Your task to perform on an android device: toggle javascript in the chrome app Image 0: 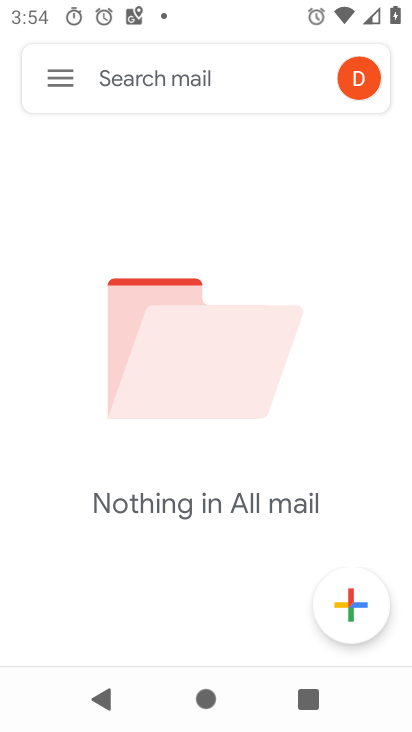
Step 0: press home button
Your task to perform on an android device: toggle javascript in the chrome app Image 1: 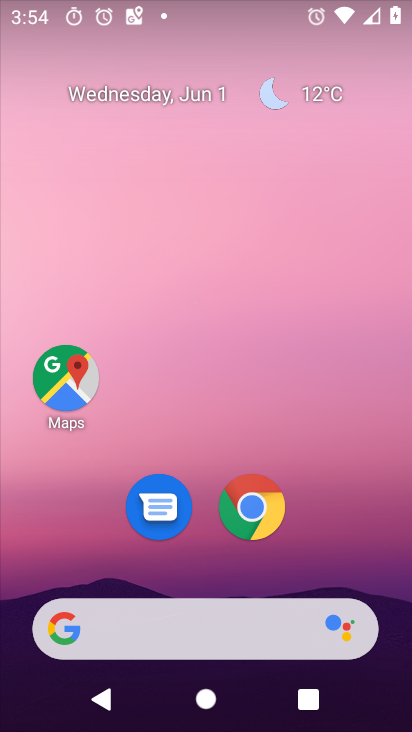
Step 1: click (257, 513)
Your task to perform on an android device: toggle javascript in the chrome app Image 2: 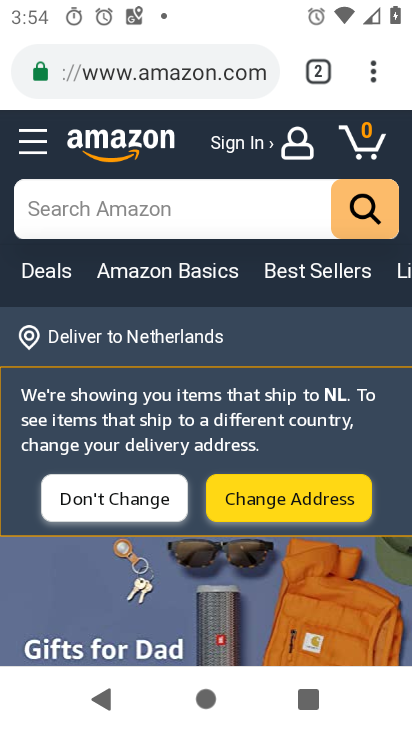
Step 2: drag from (374, 78) to (101, 508)
Your task to perform on an android device: toggle javascript in the chrome app Image 3: 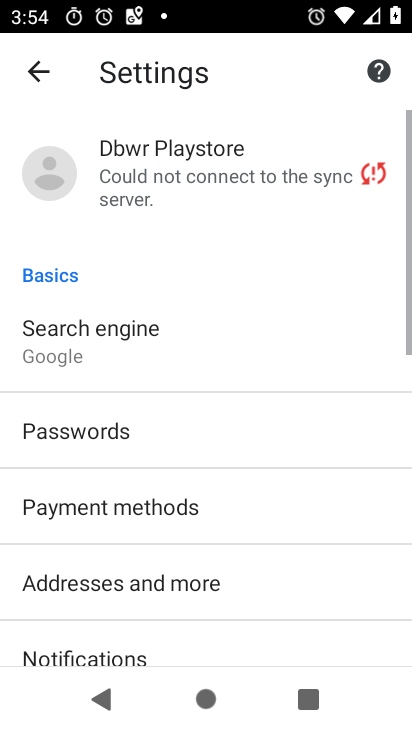
Step 3: drag from (165, 594) to (155, 329)
Your task to perform on an android device: toggle javascript in the chrome app Image 4: 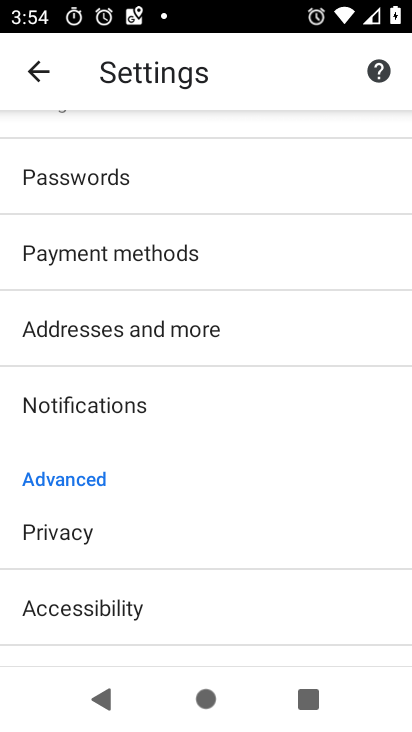
Step 4: drag from (139, 626) to (204, 245)
Your task to perform on an android device: toggle javascript in the chrome app Image 5: 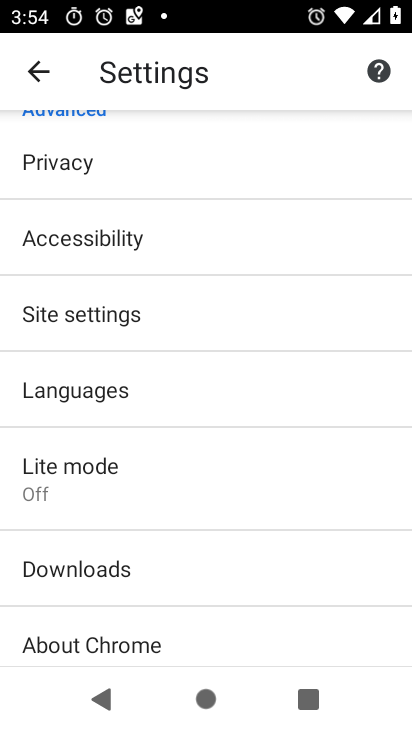
Step 5: click (62, 317)
Your task to perform on an android device: toggle javascript in the chrome app Image 6: 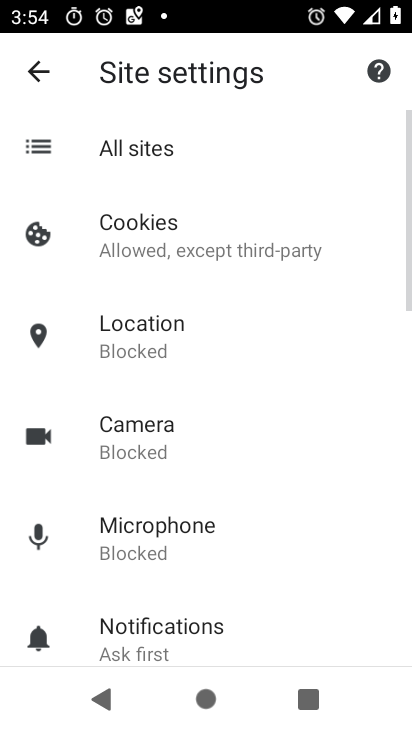
Step 6: drag from (192, 473) to (174, 287)
Your task to perform on an android device: toggle javascript in the chrome app Image 7: 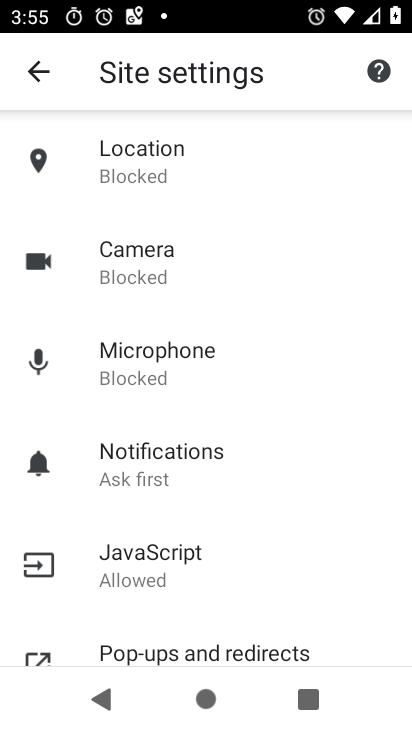
Step 7: click (124, 547)
Your task to perform on an android device: toggle javascript in the chrome app Image 8: 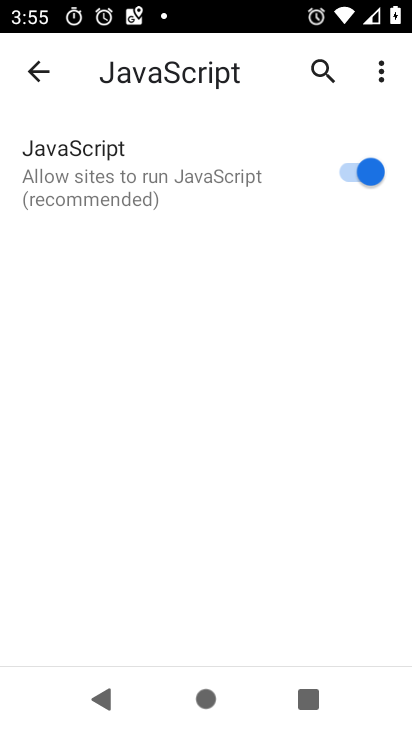
Step 8: click (363, 172)
Your task to perform on an android device: toggle javascript in the chrome app Image 9: 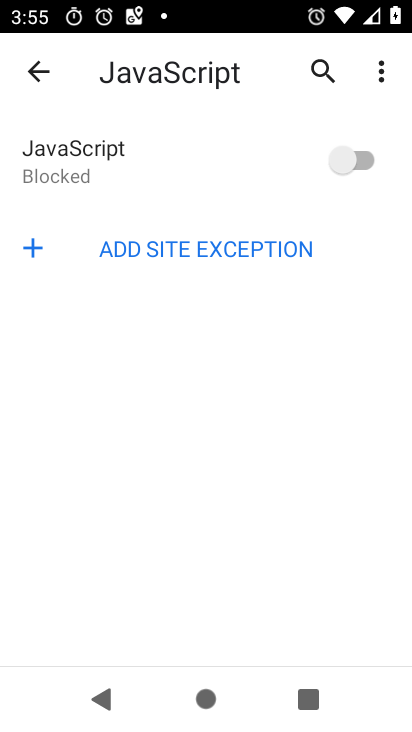
Step 9: task complete